Your task to perform on an android device: Go to CNN.com Image 0: 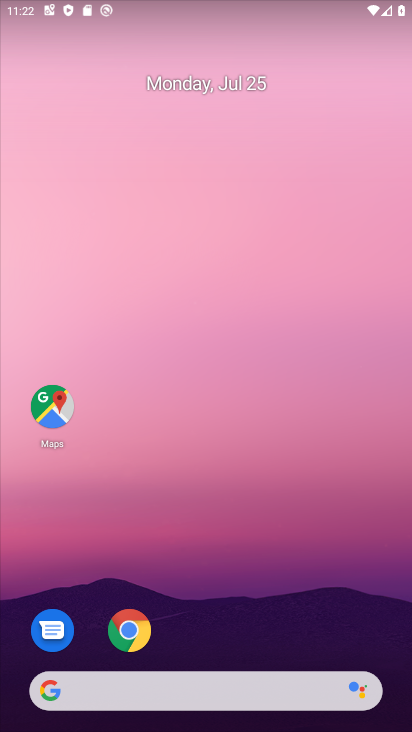
Step 0: press home button
Your task to perform on an android device: Go to CNN.com Image 1: 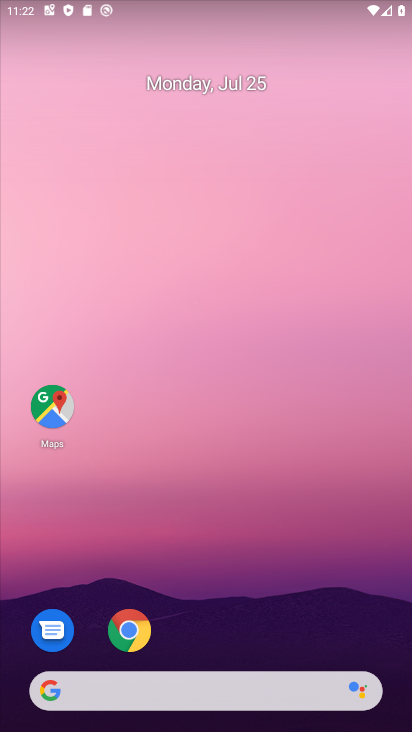
Step 1: drag from (358, 606) to (379, 129)
Your task to perform on an android device: Go to CNN.com Image 2: 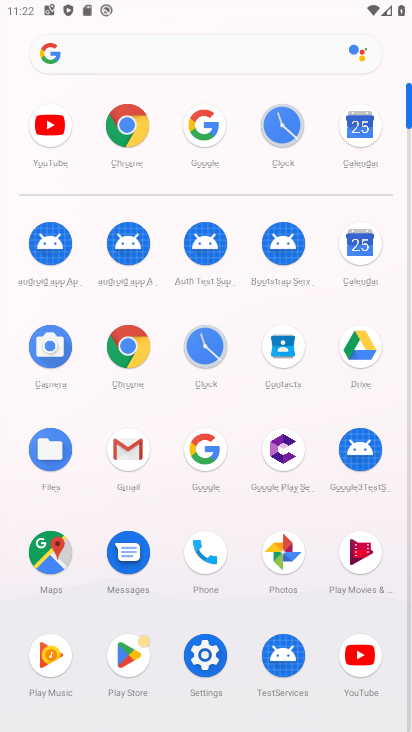
Step 2: click (134, 339)
Your task to perform on an android device: Go to CNN.com Image 3: 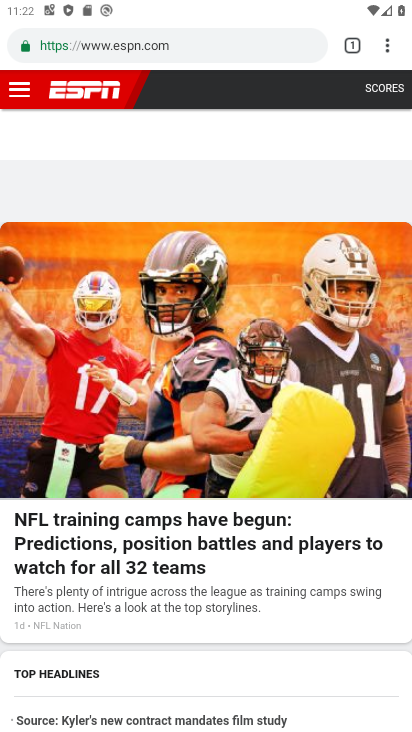
Step 3: click (210, 46)
Your task to perform on an android device: Go to CNN.com Image 4: 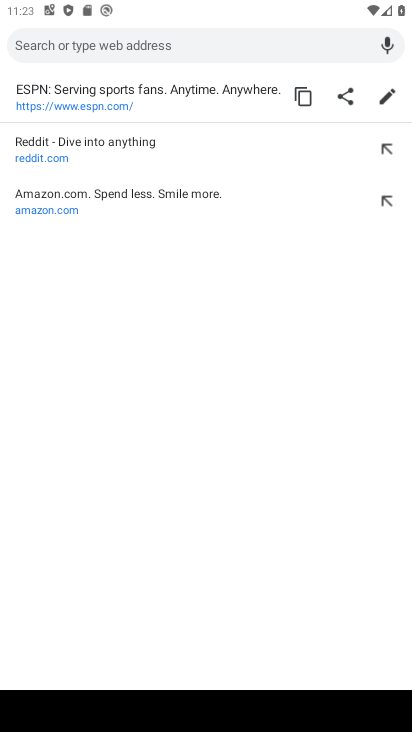
Step 4: type "cnn.com"
Your task to perform on an android device: Go to CNN.com Image 5: 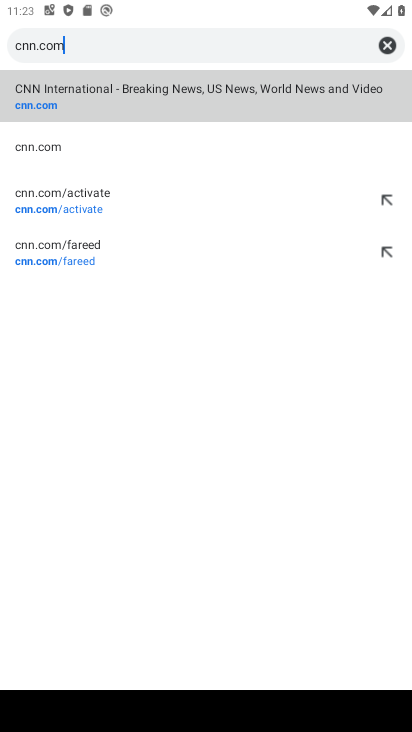
Step 5: click (322, 86)
Your task to perform on an android device: Go to CNN.com Image 6: 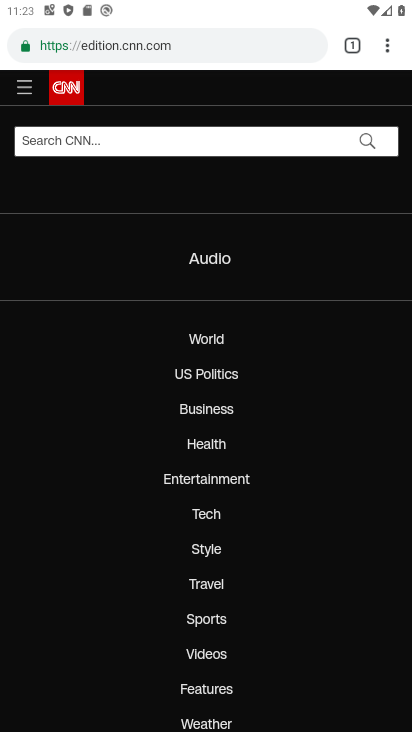
Step 6: task complete